Your task to perform on an android device: Open Google Image 0: 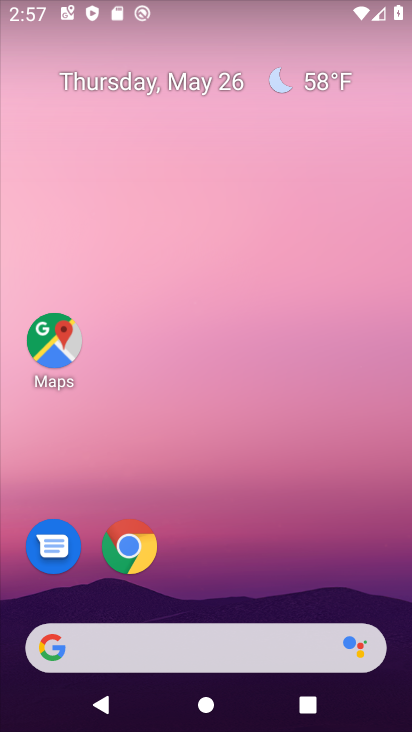
Step 0: click (128, 540)
Your task to perform on an android device: Open Google Image 1: 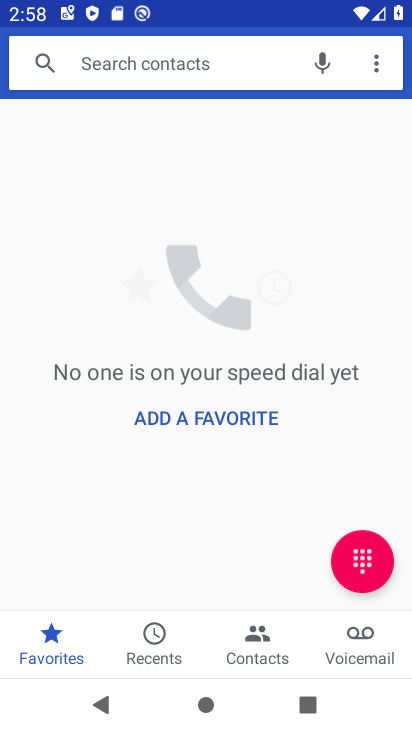
Step 1: press home button
Your task to perform on an android device: Open Google Image 2: 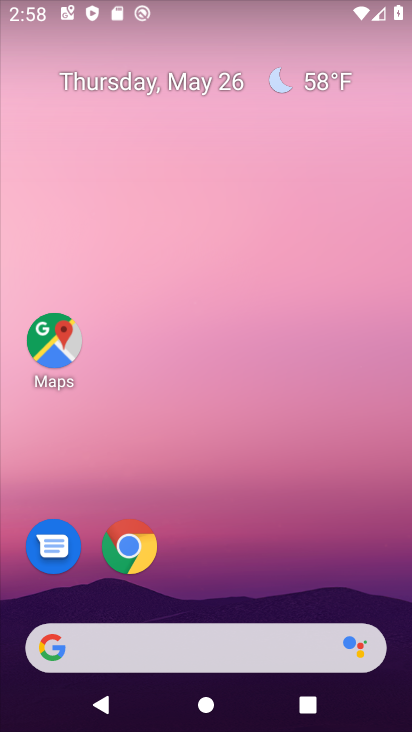
Step 2: drag from (218, 608) to (206, 70)
Your task to perform on an android device: Open Google Image 3: 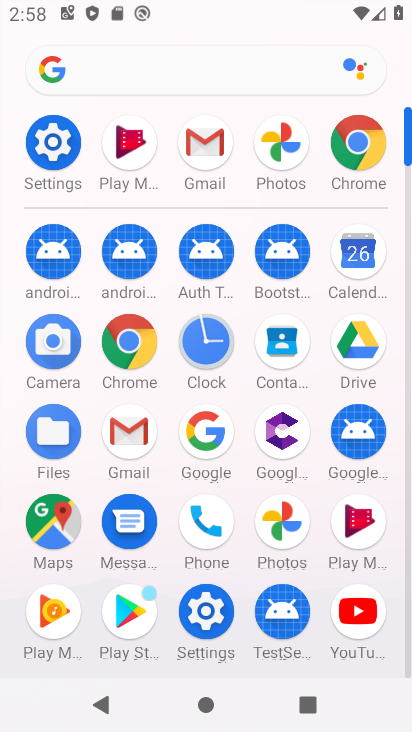
Step 3: click (209, 423)
Your task to perform on an android device: Open Google Image 4: 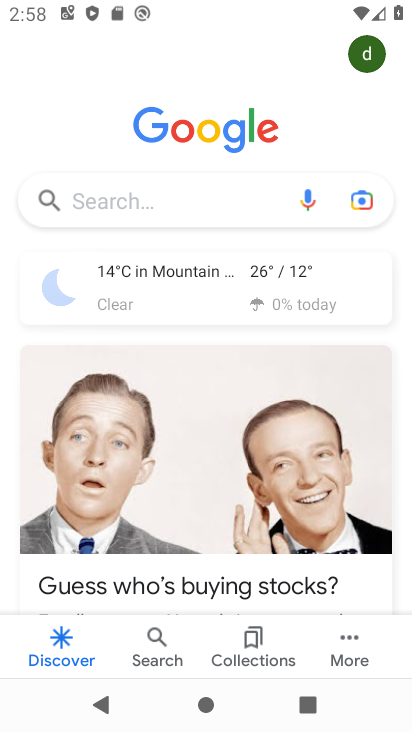
Step 4: task complete